Your task to perform on an android device: make emails show in primary in the gmail app Image 0: 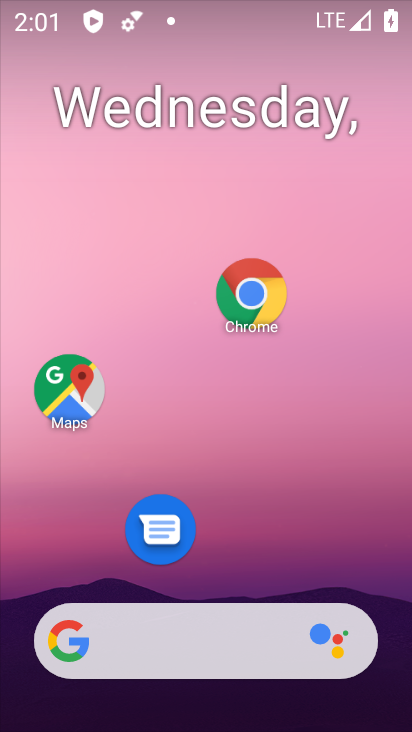
Step 0: drag from (314, 640) to (318, 277)
Your task to perform on an android device: make emails show in primary in the gmail app Image 1: 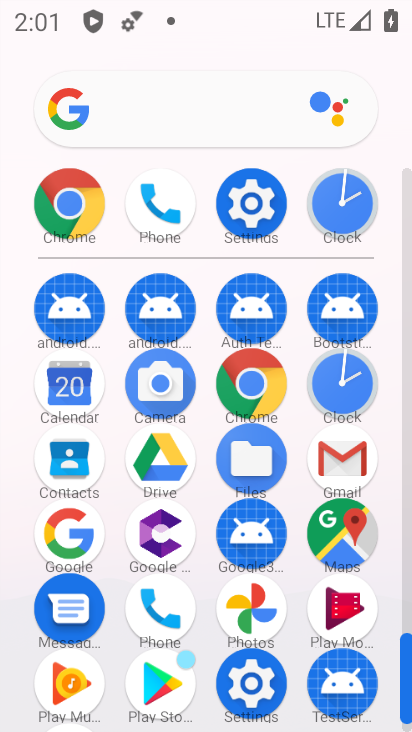
Step 1: click (321, 476)
Your task to perform on an android device: make emails show in primary in the gmail app Image 2: 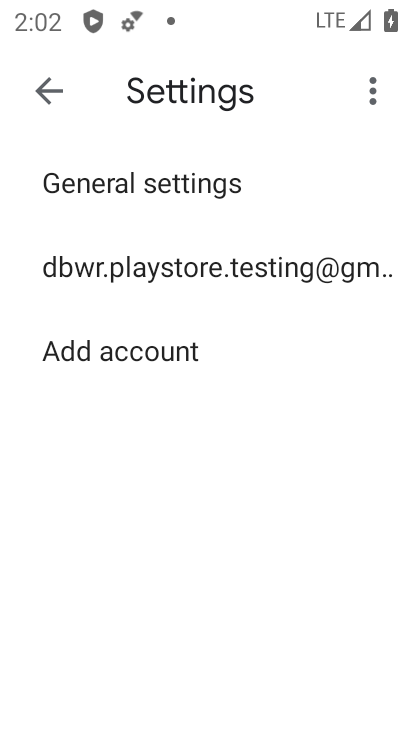
Step 2: click (195, 216)
Your task to perform on an android device: make emails show in primary in the gmail app Image 3: 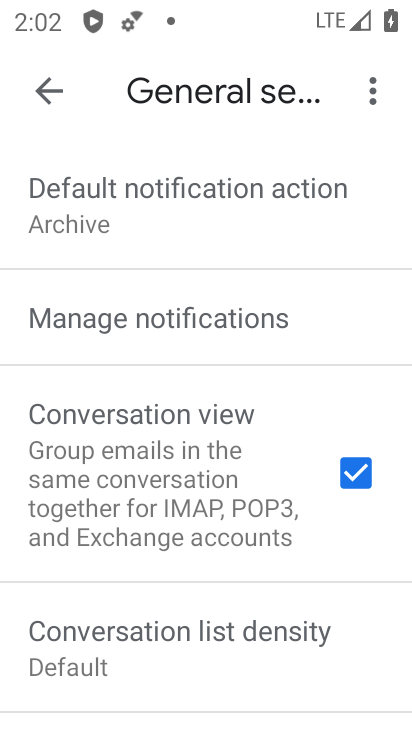
Step 3: task complete